Your task to perform on an android device: Go to wifi settings Image 0: 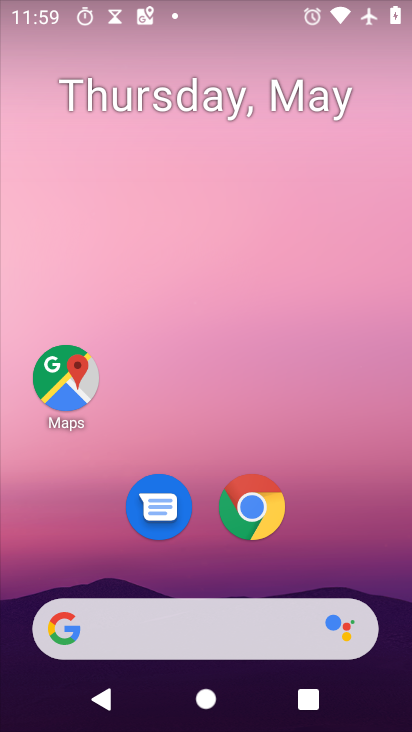
Step 0: drag from (323, 492) to (261, 13)
Your task to perform on an android device: Go to wifi settings Image 1: 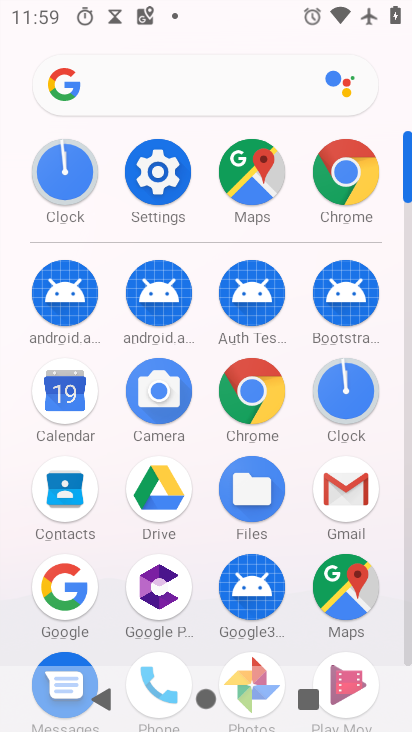
Step 1: drag from (17, 526) to (22, 248)
Your task to perform on an android device: Go to wifi settings Image 2: 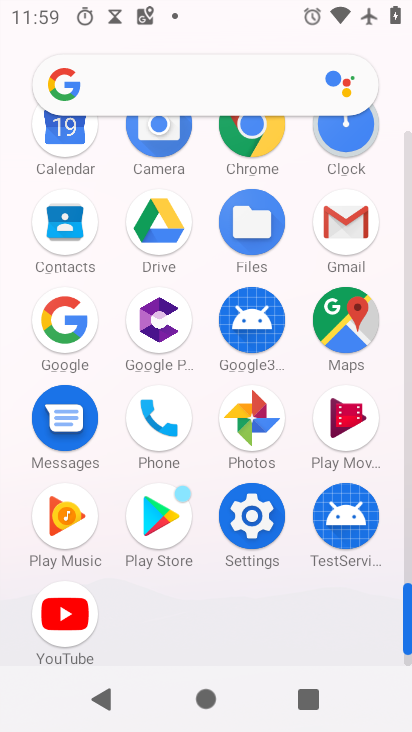
Step 2: click (250, 507)
Your task to perform on an android device: Go to wifi settings Image 3: 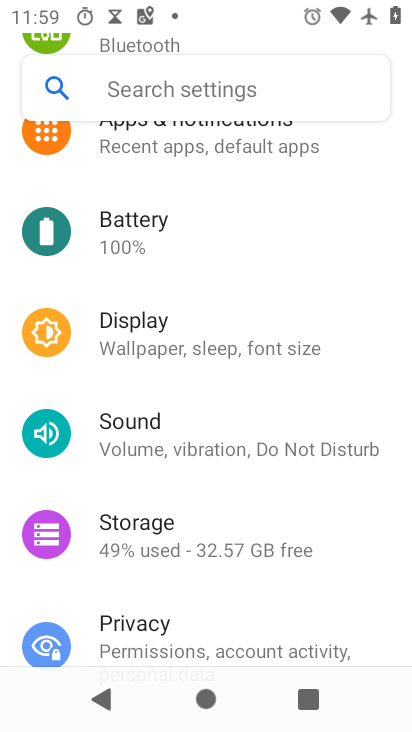
Step 3: drag from (242, 196) to (242, 584)
Your task to perform on an android device: Go to wifi settings Image 4: 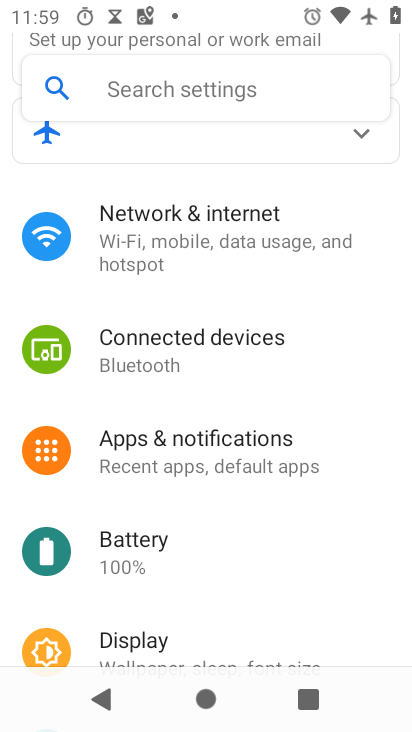
Step 4: click (242, 227)
Your task to perform on an android device: Go to wifi settings Image 5: 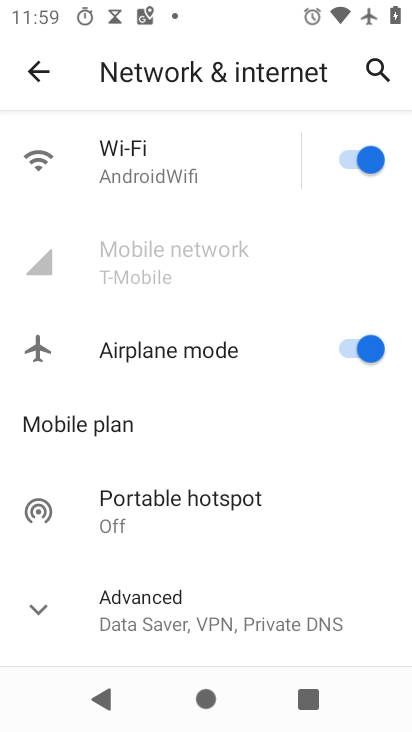
Step 5: click (156, 179)
Your task to perform on an android device: Go to wifi settings Image 6: 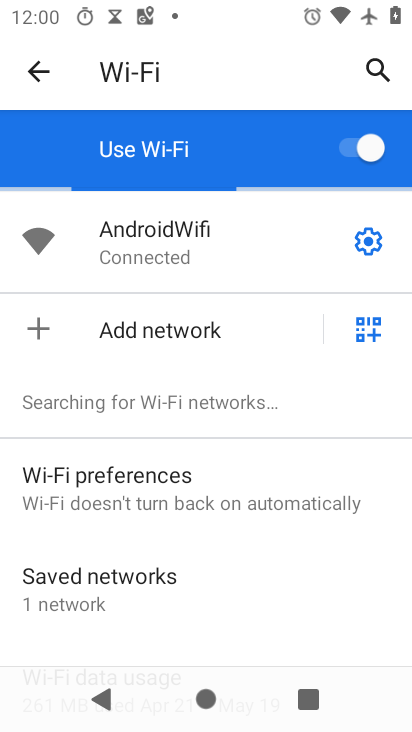
Step 6: task complete